Your task to perform on an android device: check the backup settings in the google photos Image 0: 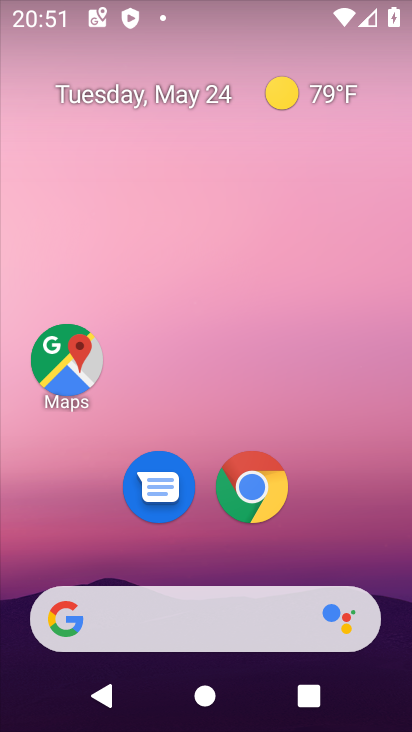
Step 0: drag from (349, 460) to (351, 10)
Your task to perform on an android device: check the backup settings in the google photos Image 1: 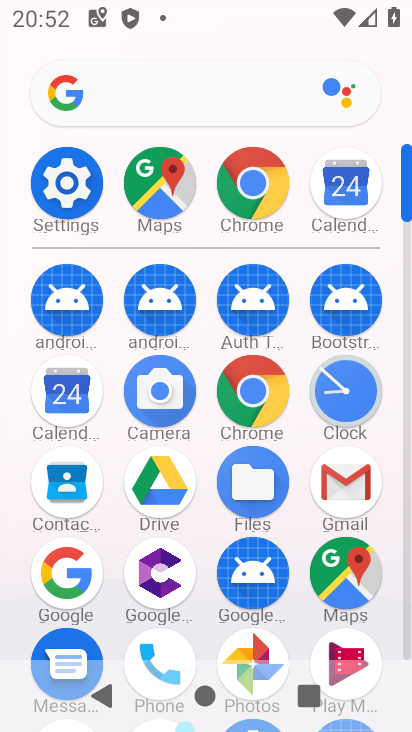
Step 1: click (402, 642)
Your task to perform on an android device: check the backup settings in the google photos Image 2: 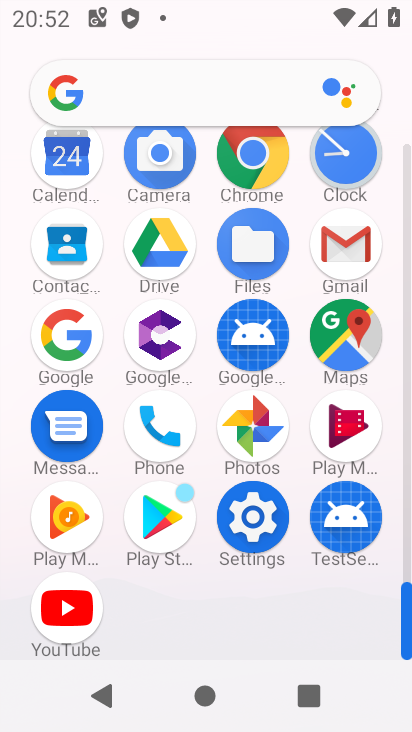
Step 2: click (276, 419)
Your task to perform on an android device: check the backup settings in the google photos Image 3: 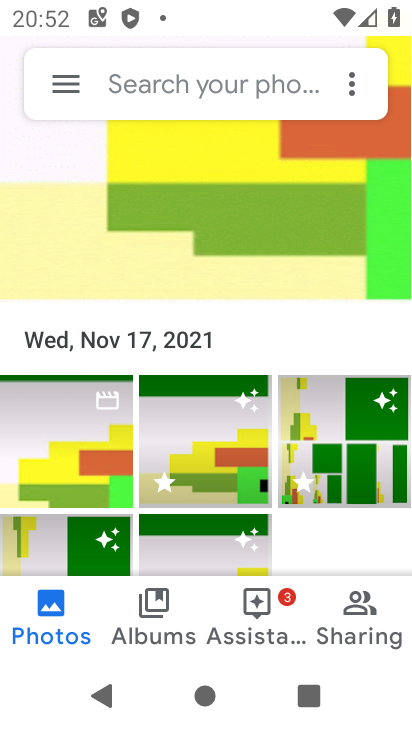
Step 3: click (68, 74)
Your task to perform on an android device: check the backup settings in the google photos Image 4: 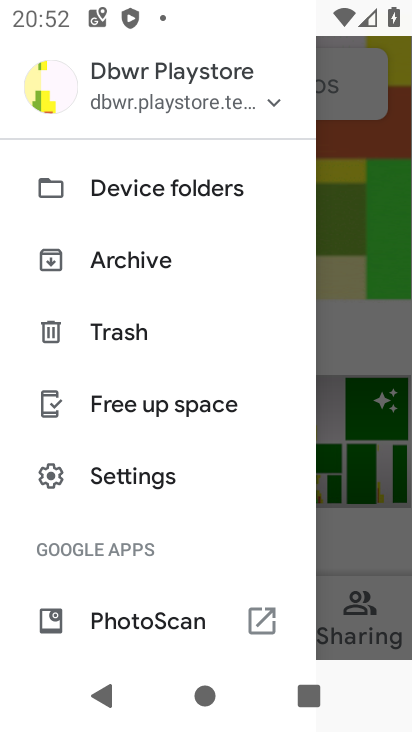
Step 4: click (144, 474)
Your task to perform on an android device: check the backup settings in the google photos Image 5: 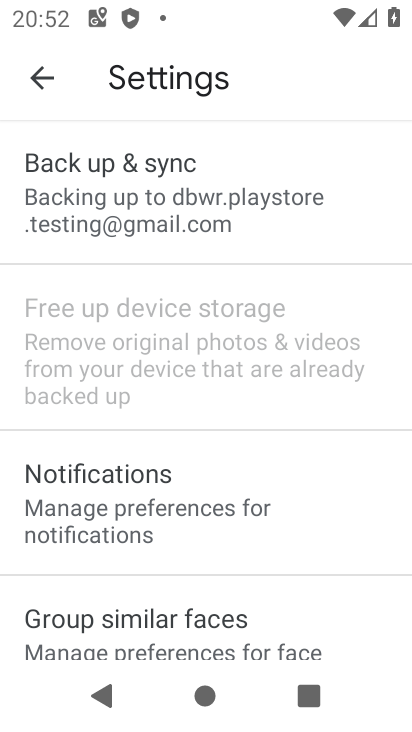
Step 5: click (154, 171)
Your task to perform on an android device: check the backup settings in the google photos Image 6: 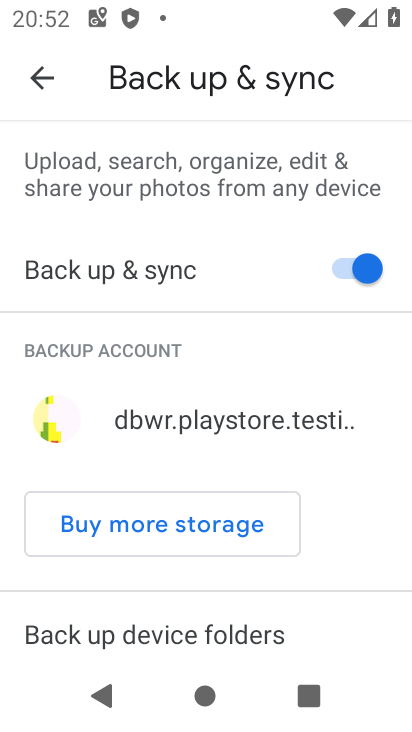
Step 6: task complete